Your task to perform on an android device: Search for rayovac triple a on target, select the first entry, and add it to the cart. Image 0: 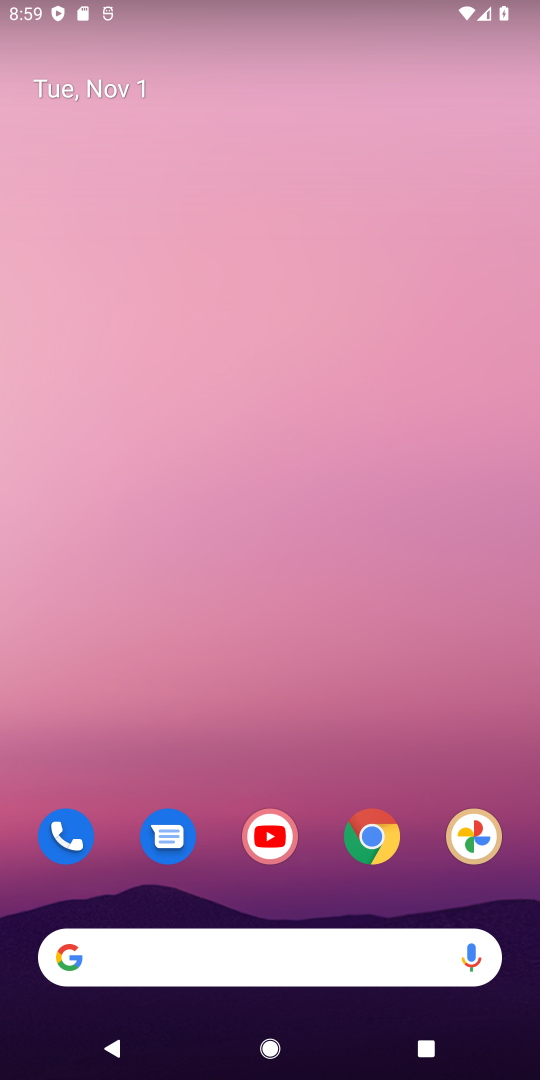
Step 0: click (379, 847)
Your task to perform on an android device: Search for rayovac triple a on target, select the first entry, and add it to the cart. Image 1: 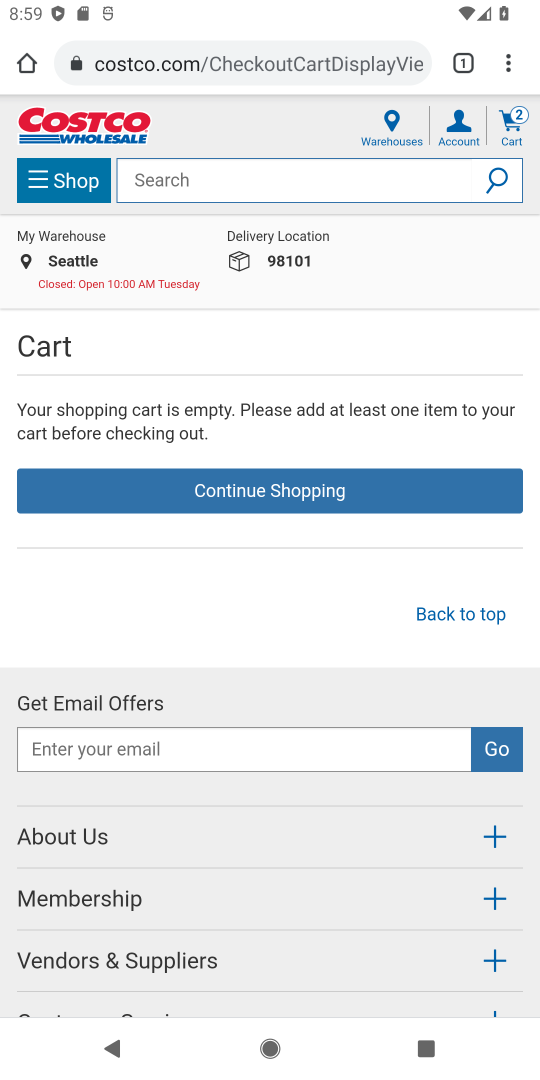
Step 1: click (244, 182)
Your task to perform on an android device: Search for rayovac triple a on target, select the first entry, and add it to the cart. Image 2: 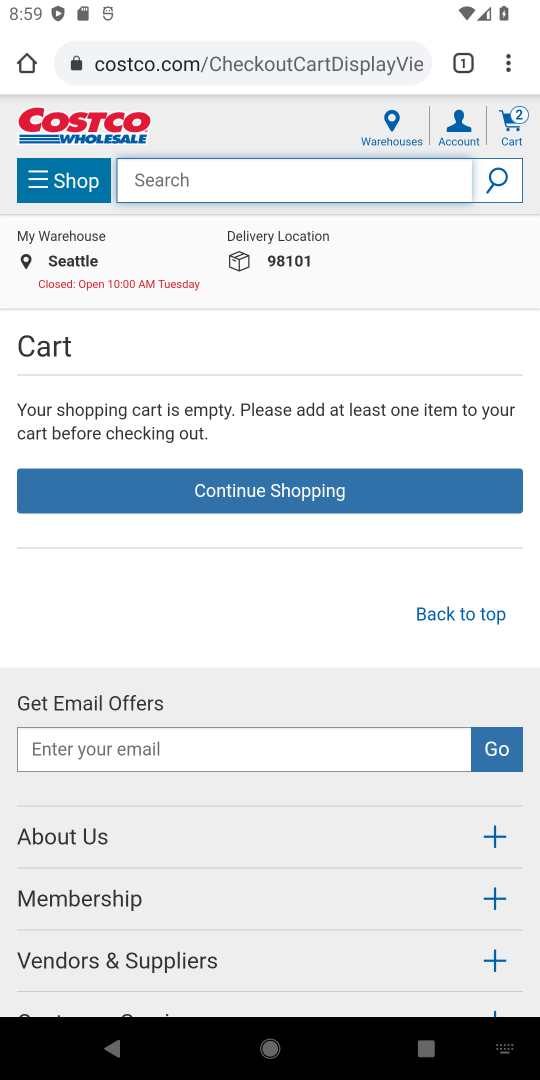
Step 2: click (172, 57)
Your task to perform on an android device: Search for rayovac triple a on target, select the first entry, and add it to the cart. Image 3: 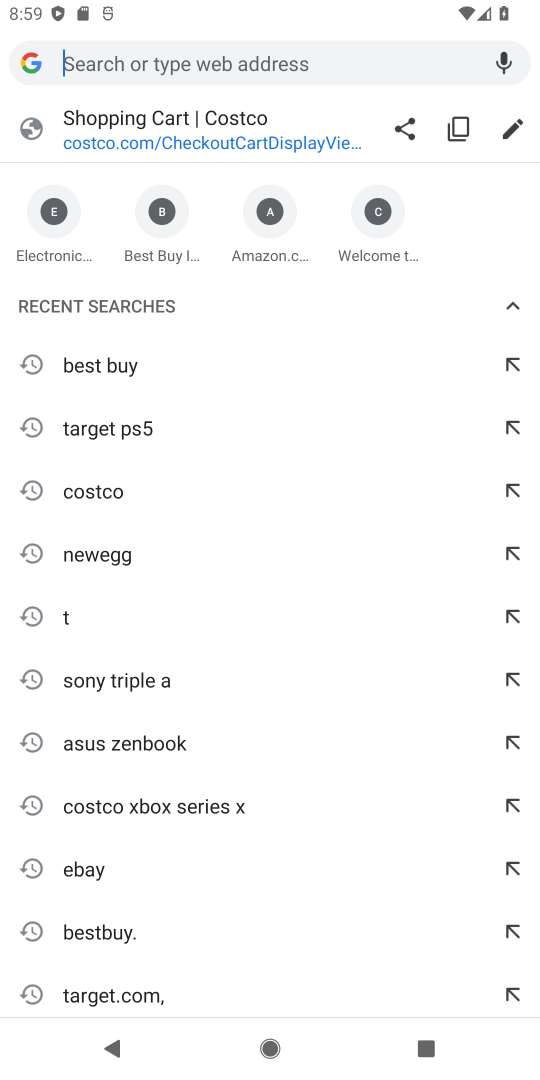
Step 3: type "target"
Your task to perform on an android device: Search for rayovac triple a on target, select the first entry, and add it to the cart. Image 4: 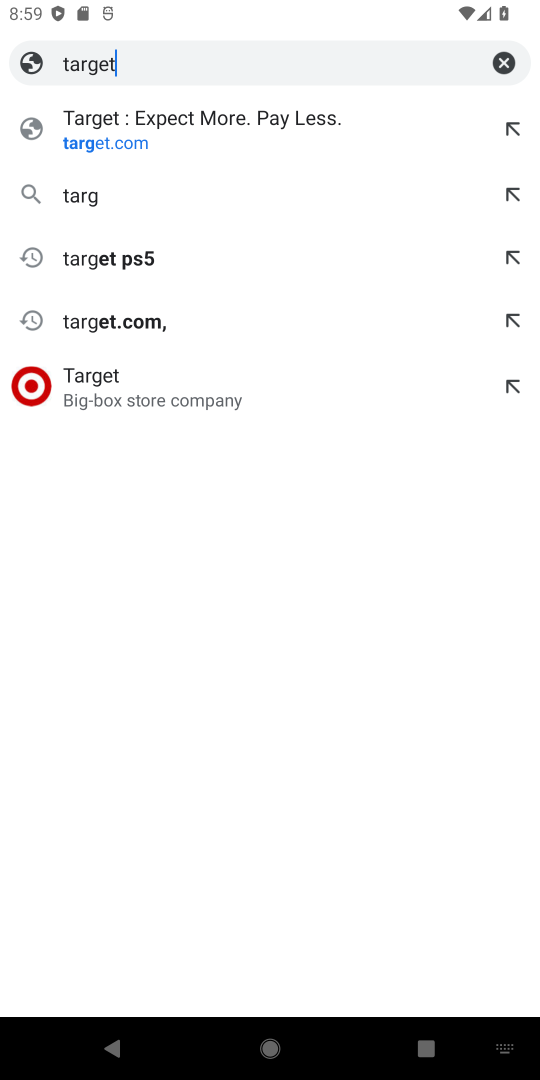
Step 4: type ""
Your task to perform on an android device: Search for rayovac triple a on target, select the first entry, and add it to the cart. Image 5: 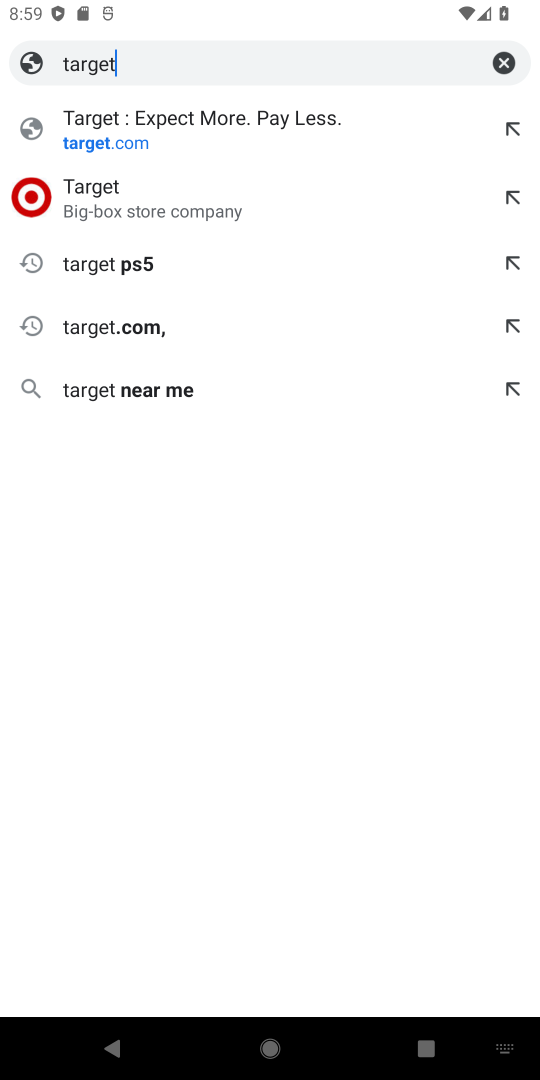
Step 5: click (159, 114)
Your task to perform on an android device: Search for rayovac triple a on target, select the first entry, and add it to the cart. Image 6: 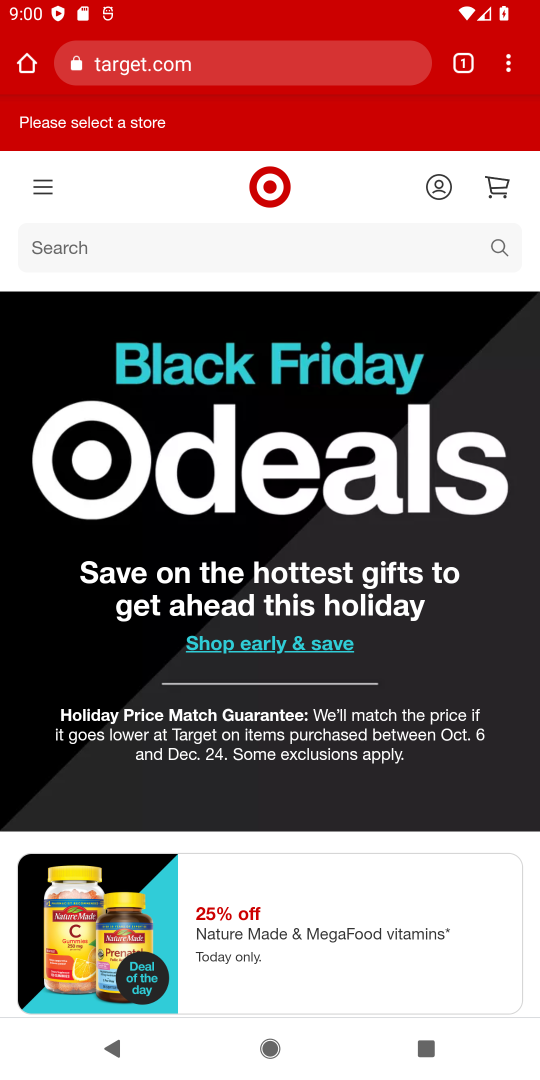
Step 6: click (136, 257)
Your task to perform on an android device: Search for rayovac triple a on target, select the first entry, and add it to the cart. Image 7: 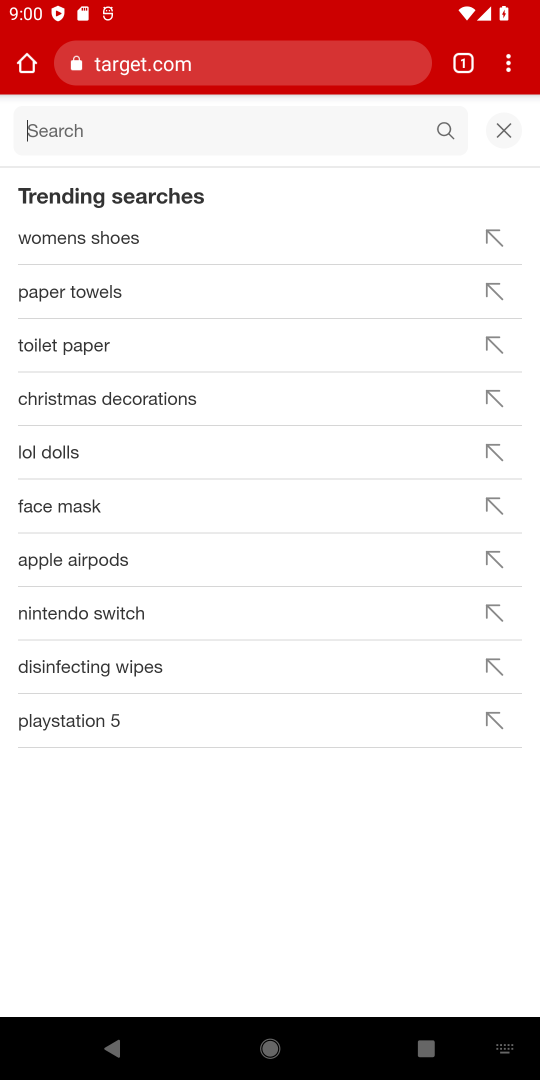
Step 7: type "rayovac"
Your task to perform on an android device: Search for rayovac triple a on target, select the first entry, and add it to the cart. Image 8: 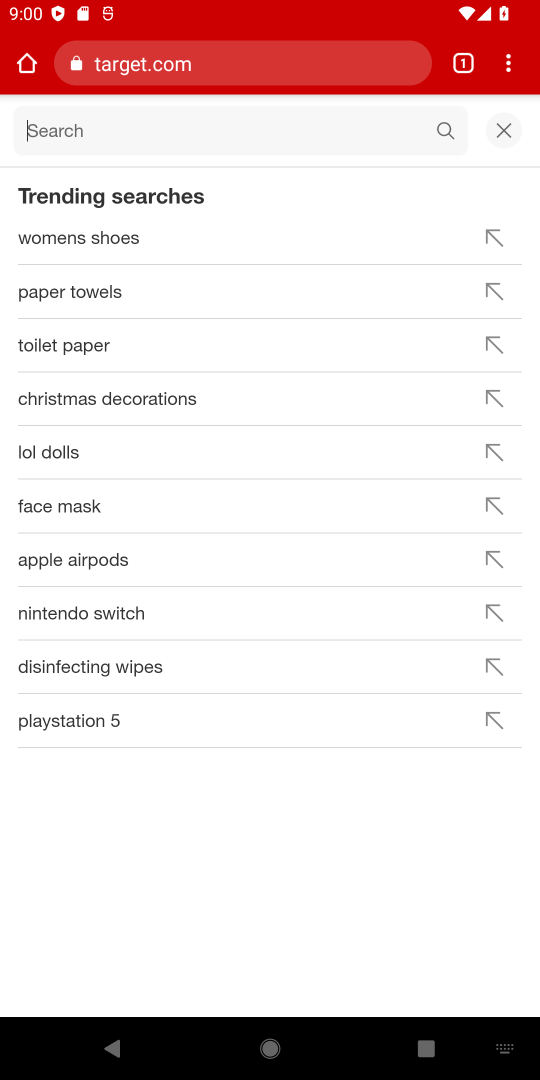
Step 8: type ""
Your task to perform on an android device: Search for rayovac triple a on target, select the first entry, and add it to the cart. Image 9: 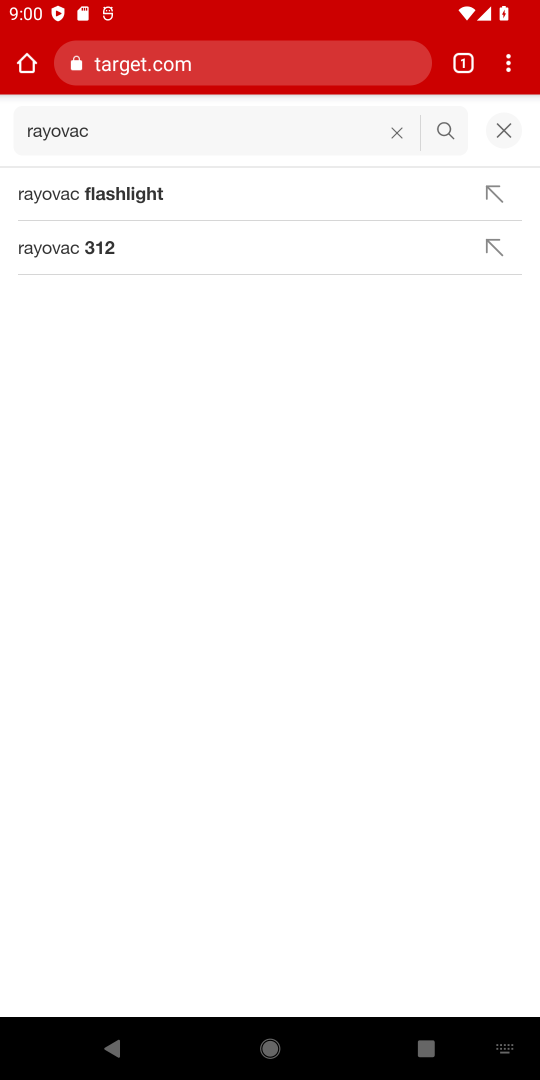
Step 9: click (54, 197)
Your task to perform on an android device: Search for rayovac triple a on target, select the first entry, and add it to the cart. Image 10: 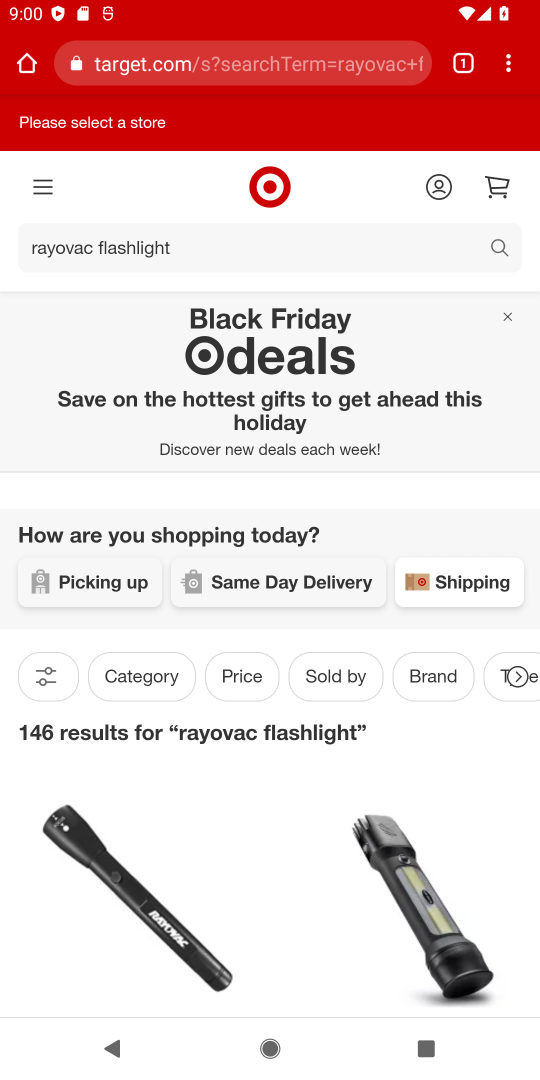
Step 10: click (169, 928)
Your task to perform on an android device: Search for rayovac triple a on target, select the first entry, and add it to the cart. Image 11: 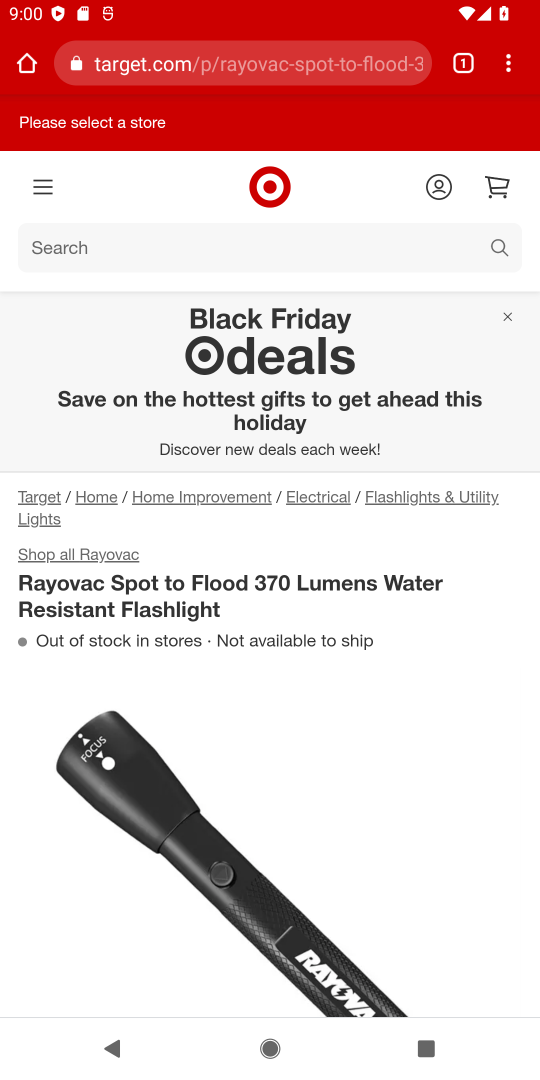
Step 11: drag from (208, 797) to (367, 272)
Your task to perform on an android device: Search for rayovac triple a on target, select the first entry, and add it to the cart. Image 12: 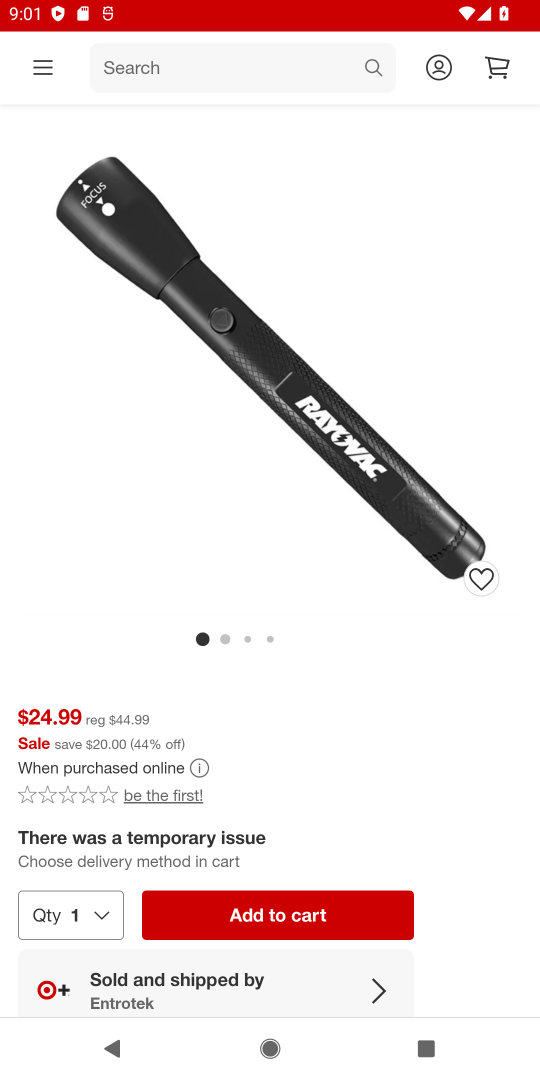
Step 12: click (277, 911)
Your task to perform on an android device: Search for rayovac triple a on target, select the first entry, and add it to the cart. Image 13: 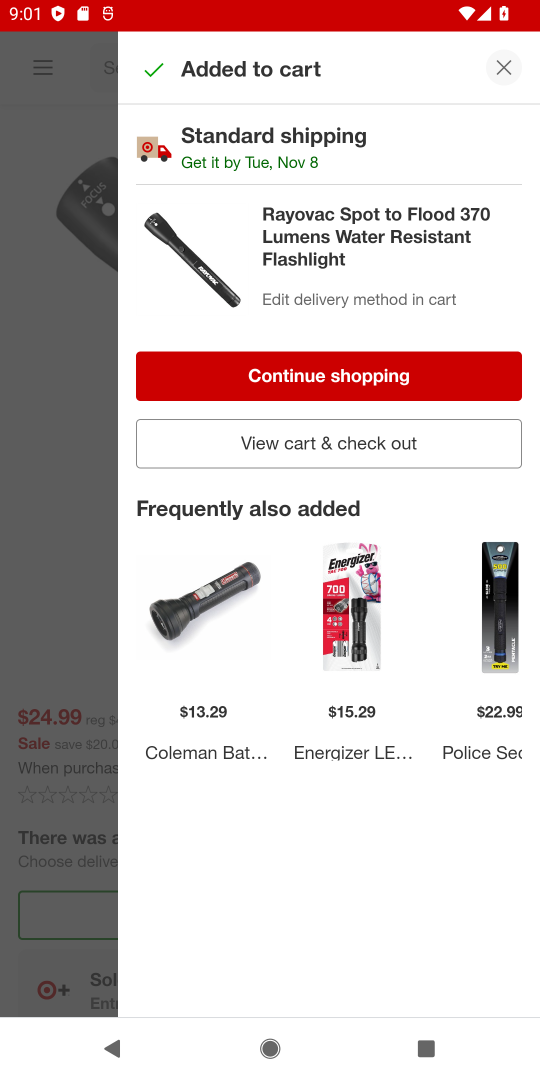
Step 13: click (272, 380)
Your task to perform on an android device: Search for rayovac triple a on target, select the first entry, and add it to the cart. Image 14: 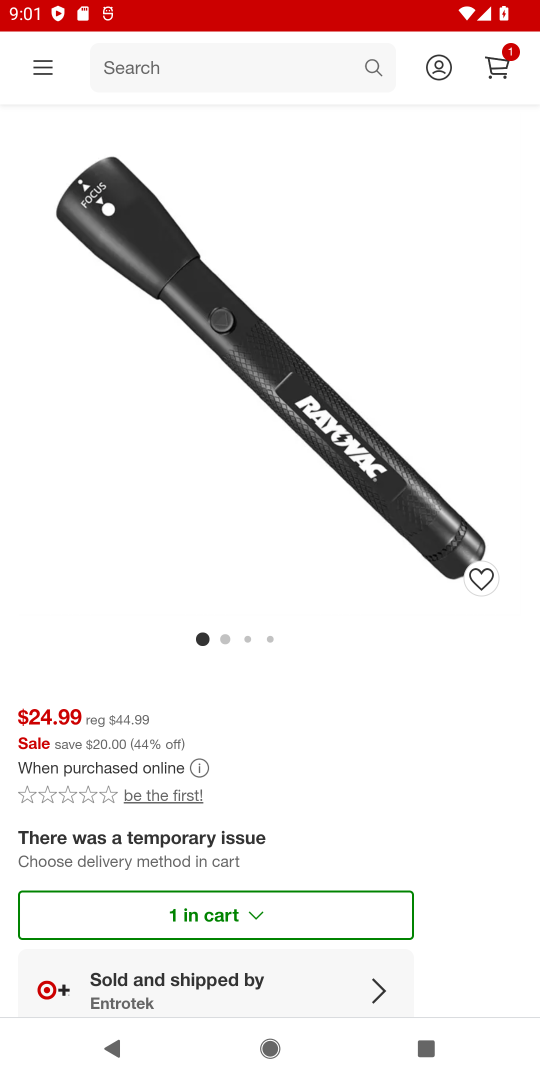
Step 14: drag from (346, 695) to (392, 292)
Your task to perform on an android device: Search for rayovac triple a on target, select the first entry, and add it to the cart. Image 15: 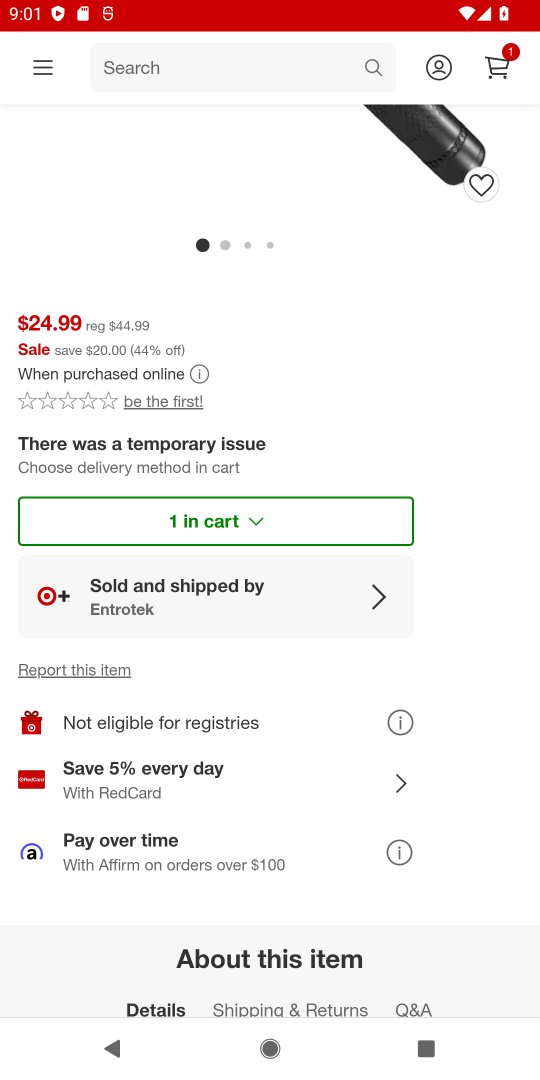
Step 15: click (510, 65)
Your task to perform on an android device: Search for rayovac triple a on target, select the first entry, and add it to the cart. Image 16: 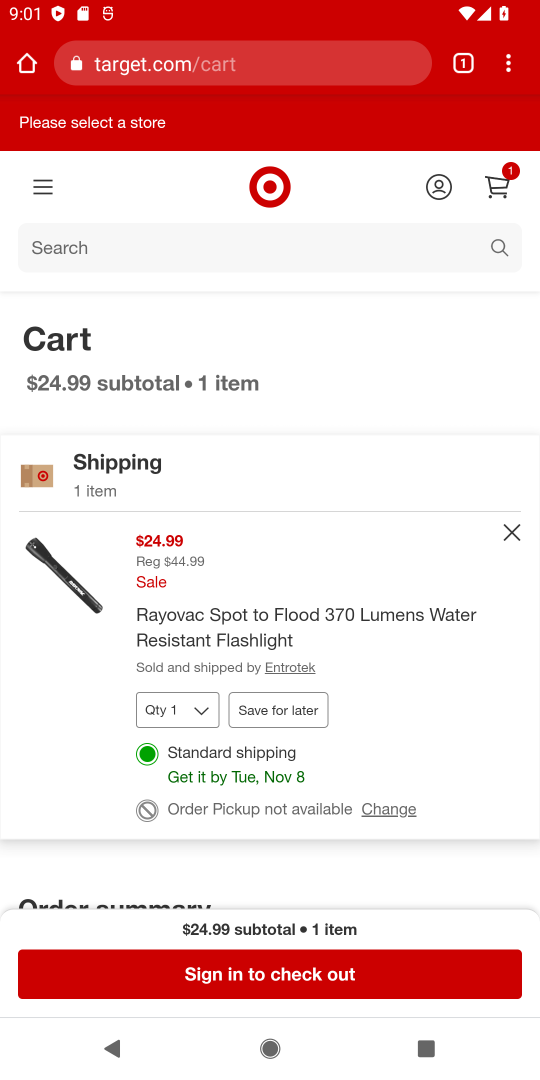
Step 16: drag from (273, 630) to (323, 444)
Your task to perform on an android device: Search for rayovac triple a on target, select the first entry, and add it to the cart. Image 17: 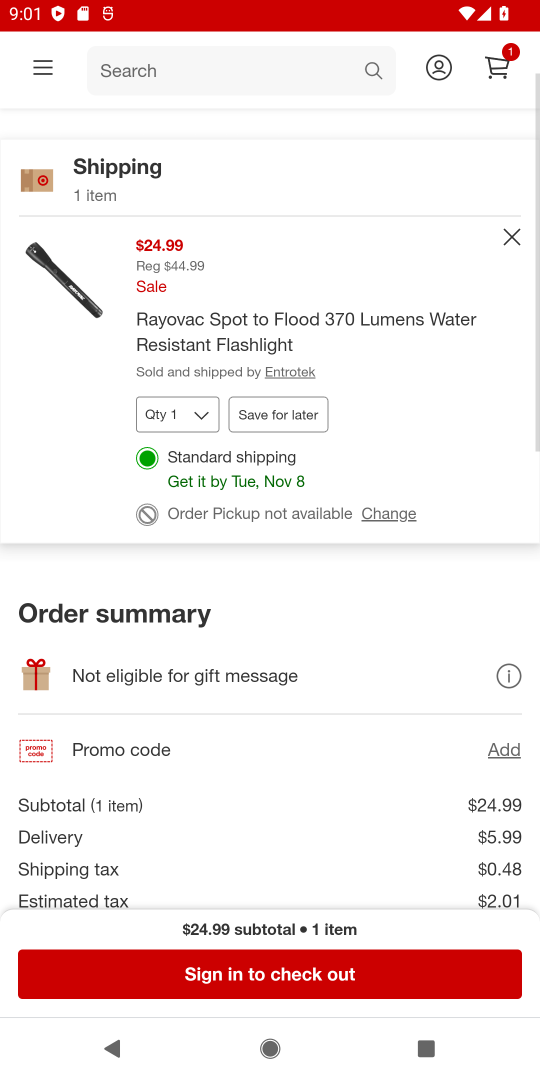
Step 17: click (308, 985)
Your task to perform on an android device: Search for rayovac triple a on target, select the first entry, and add it to the cart. Image 18: 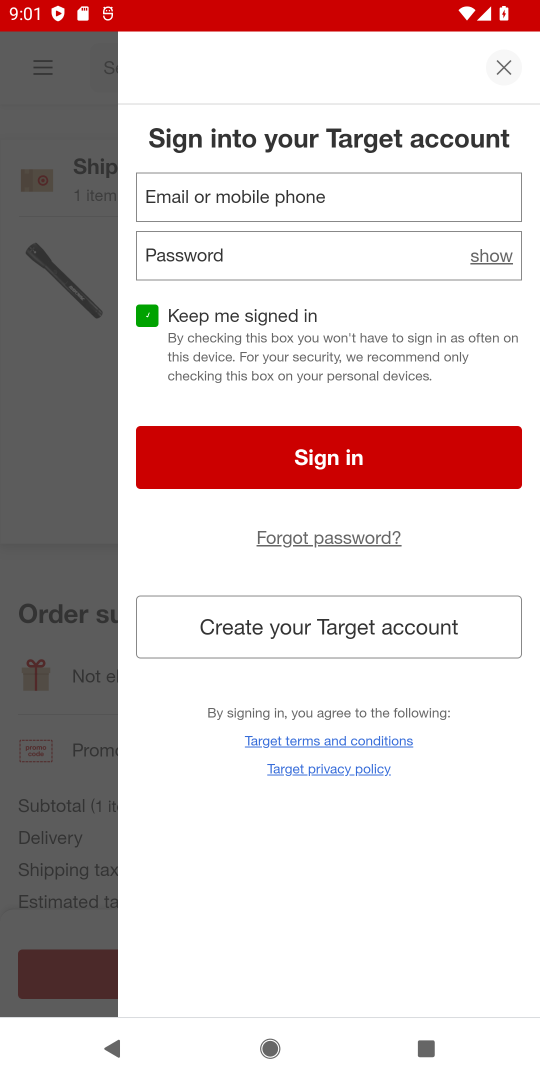
Step 18: task complete